Your task to perform on an android device: change the clock display to analog Image 0: 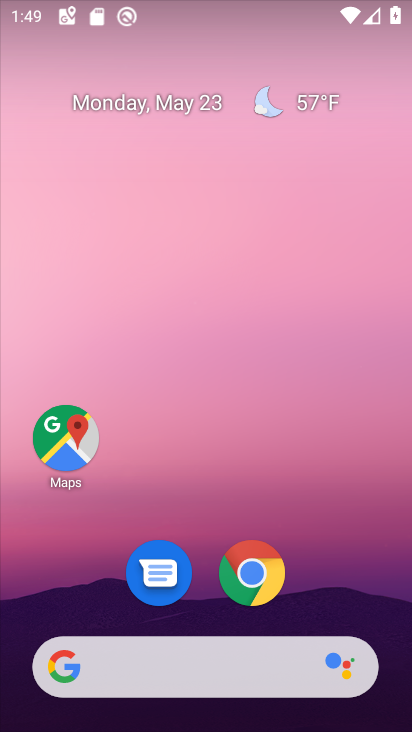
Step 0: drag from (313, 604) to (304, 243)
Your task to perform on an android device: change the clock display to analog Image 1: 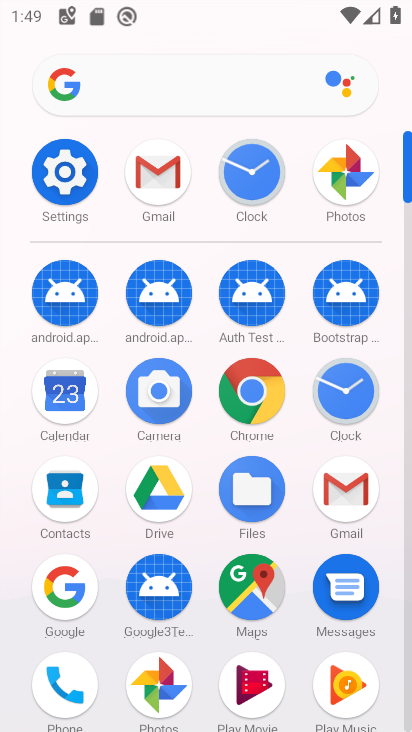
Step 1: click (255, 176)
Your task to perform on an android device: change the clock display to analog Image 2: 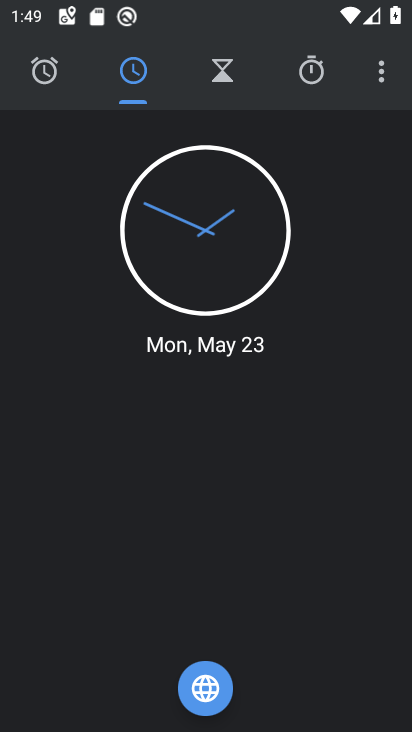
Step 2: click (369, 66)
Your task to perform on an android device: change the clock display to analog Image 3: 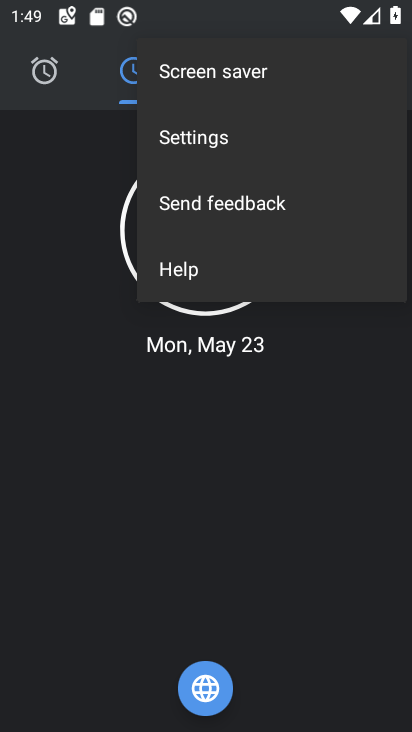
Step 3: click (299, 120)
Your task to perform on an android device: change the clock display to analog Image 4: 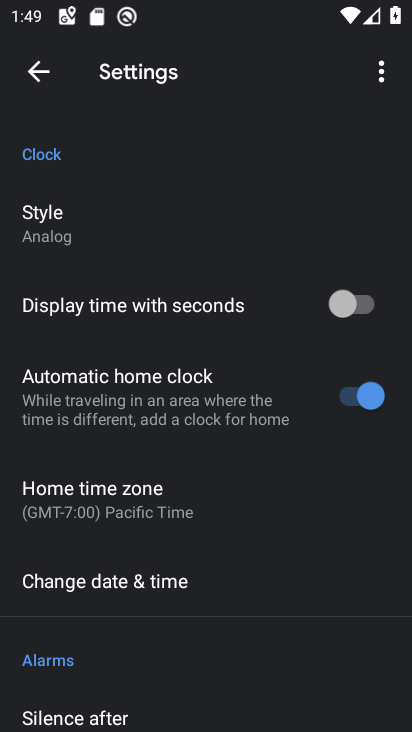
Step 4: click (70, 209)
Your task to perform on an android device: change the clock display to analog Image 5: 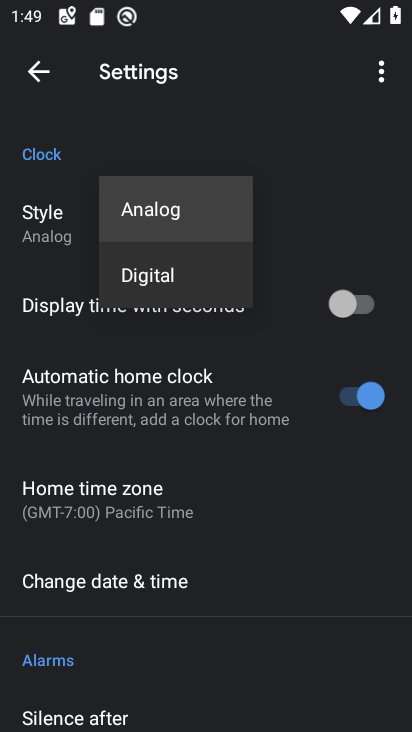
Step 5: click (171, 213)
Your task to perform on an android device: change the clock display to analog Image 6: 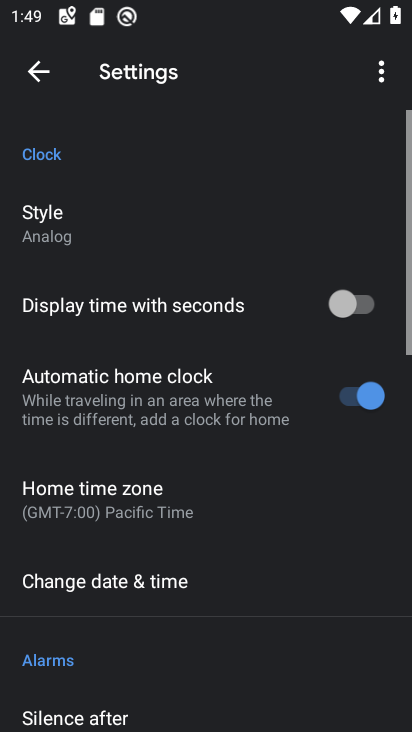
Step 6: click (176, 210)
Your task to perform on an android device: change the clock display to analog Image 7: 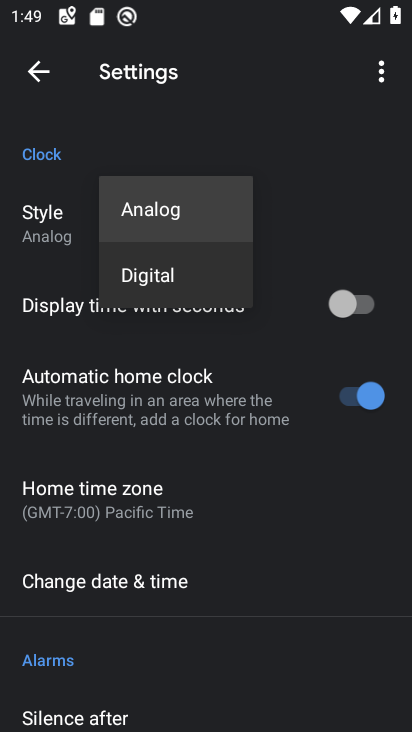
Step 7: click (183, 209)
Your task to perform on an android device: change the clock display to analog Image 8: 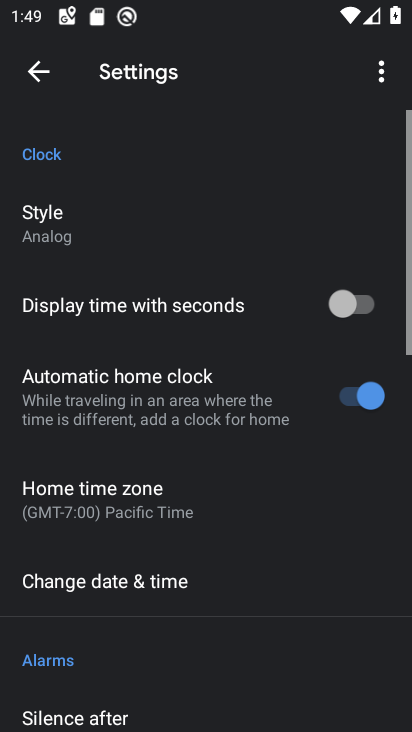
Step 8: click (183, 209)
Your task to perform on an android device: change the clock display to analog Image 9: 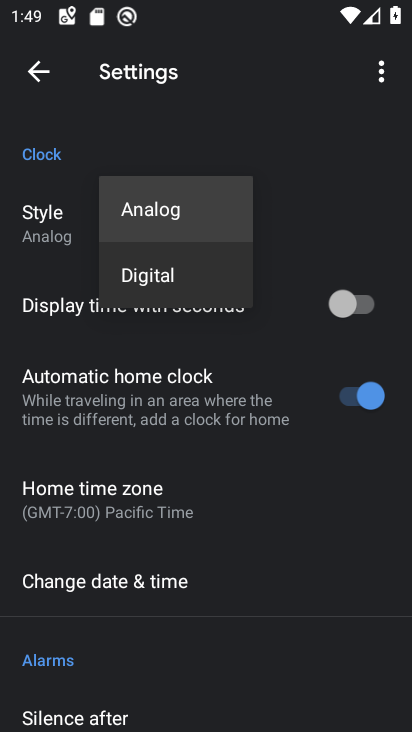
Step 9: click (169, 207)
Your task to perform on an android device: change the clock display to analog Image 10: 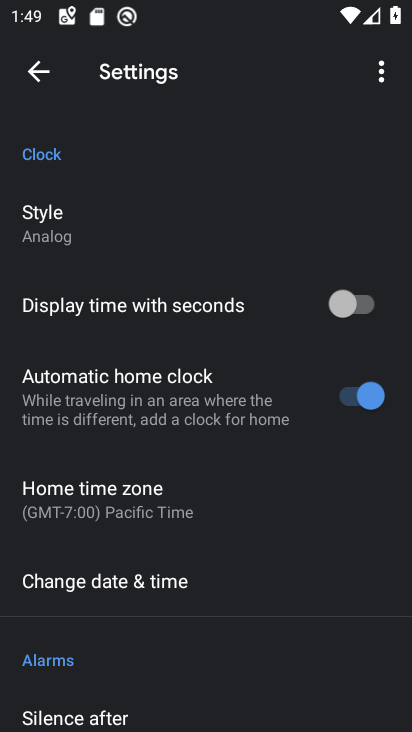
Step 10: task complete